Your task to perform on an android device: change your default location settings in chrome Image 0: 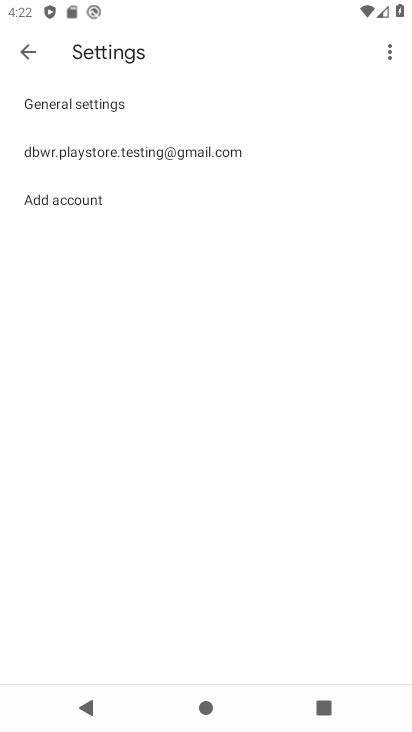
Step 0: press home button
Your task to perform on an android device: change your default location settings in chrome Image 1: 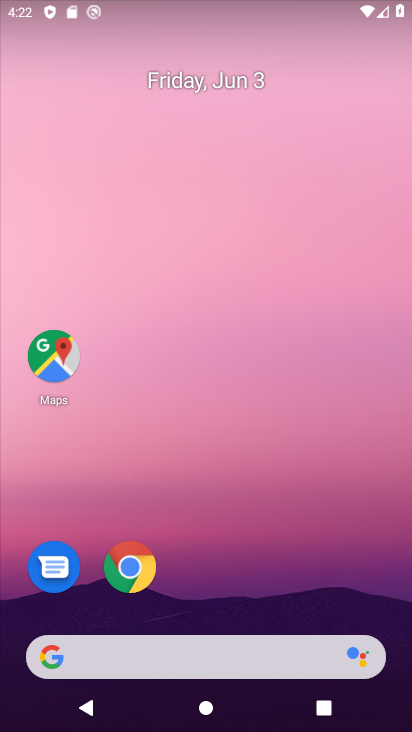
Step 1: click (129, 569)
Your task to perform on an android device: change your default location settings in chrome Image 2: 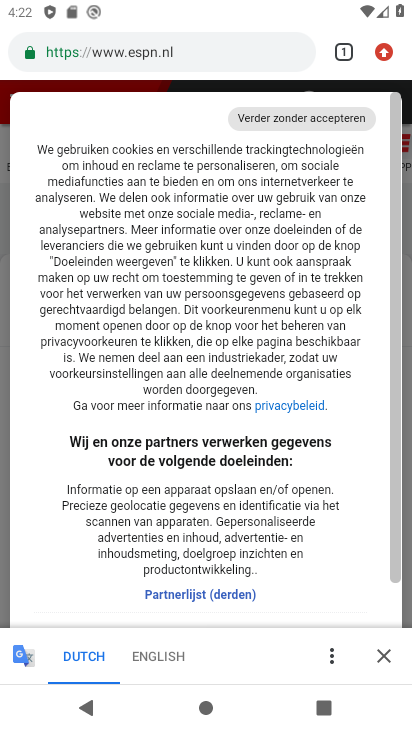
Step 2: click (382, 48)
Your task to perform on an android device: change your default location settings in chrome Image 3: 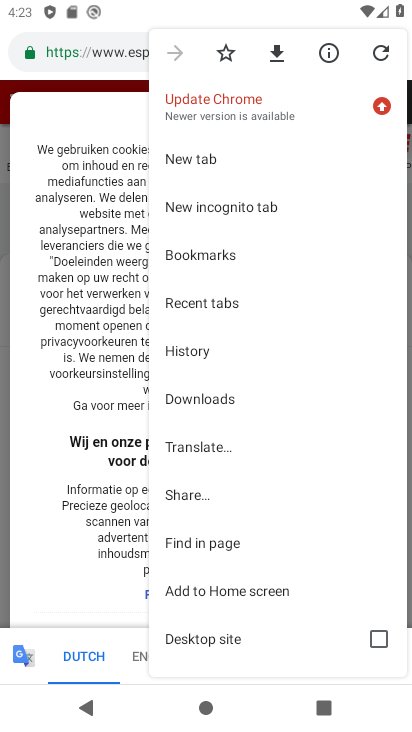
Step 3: drag from (218, 516) to (272, 390)
Your task to perform on an android device: change your default location settings in chrome Image 4: 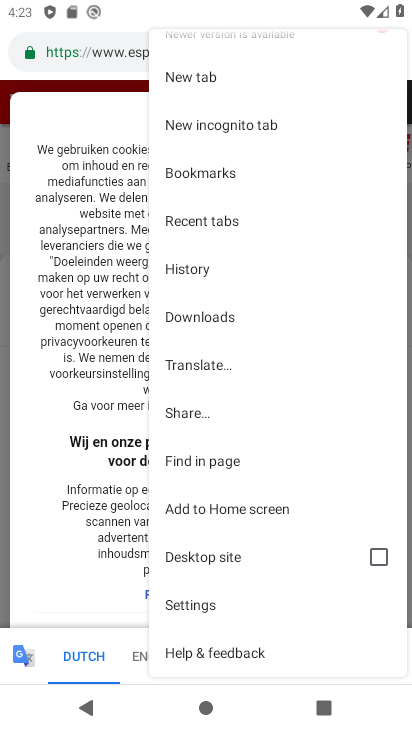
Step 4: click (197, 604)
Your task to perform on an android device: change your default location settings in chrome Image 5: 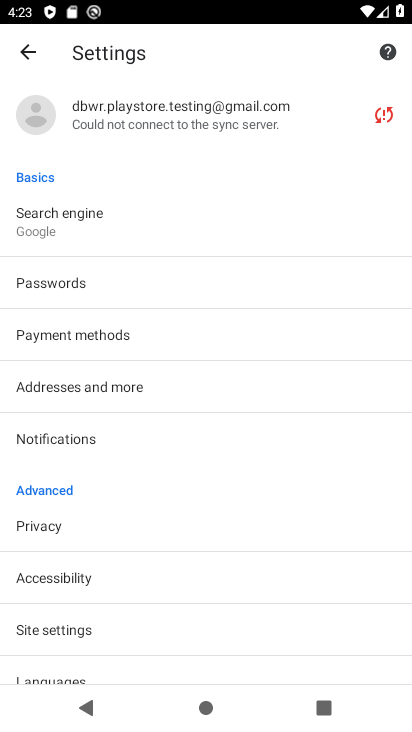
Step 5: drag from (99, 569) to (150, 444)
Your task to perform on an android device: change your default location settings in chrome Image 6: 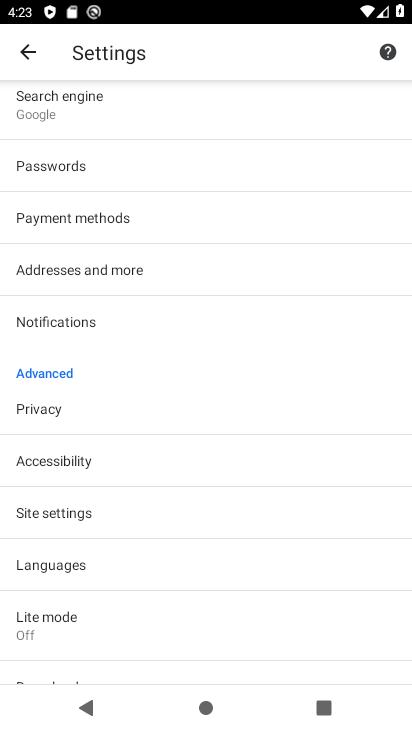
Step 6: click (57, 512)
Your task to perform on an android device: change your default location settings in chrome Image 7: 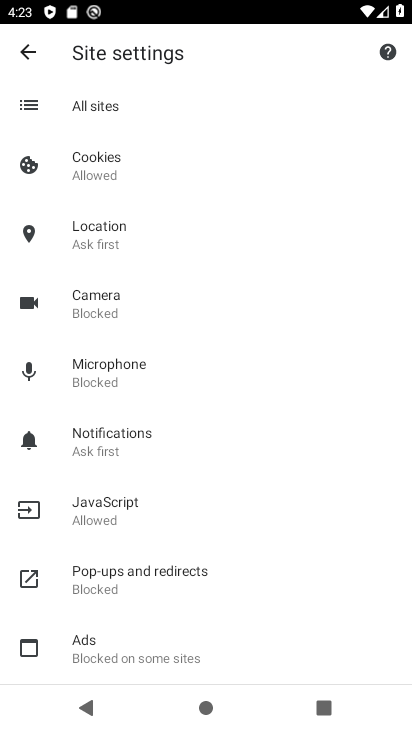
Step 7: drag from (184, 533) to (204, 471)
Your task to perform on an android device: change your default location settings in chrome Image 8: 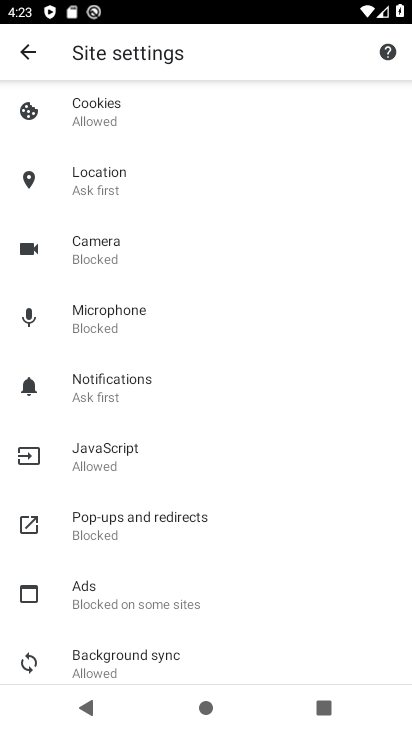
Step 8: click (131, 189)
Your task to perform on an android device: change your default location settings in chrome Image 9: 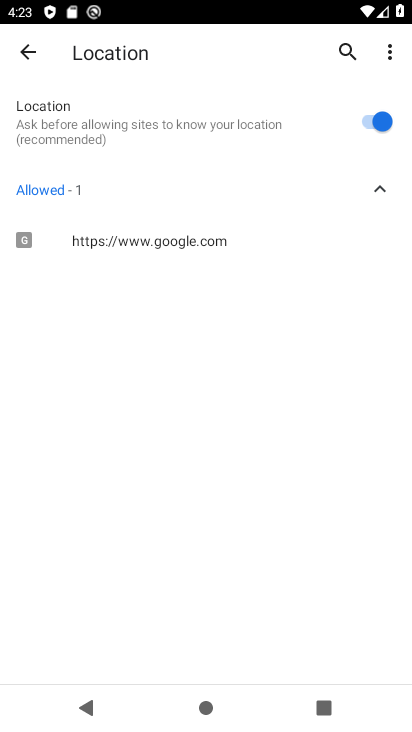
Step 9: task complete